Your task to perform on an android device: change timer sound Image 0: 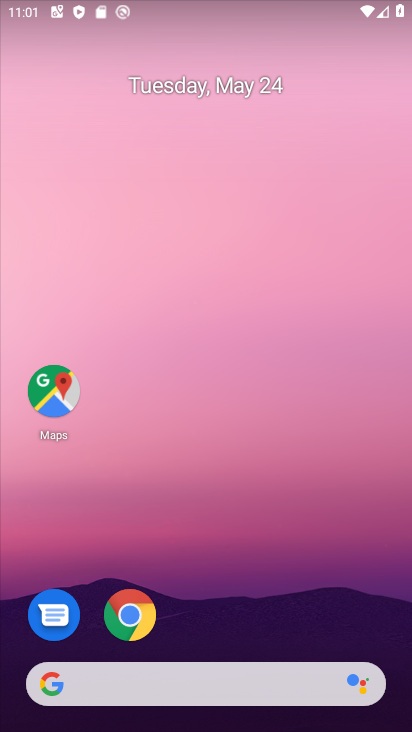
Step 0: drag from (266, 605) to (239, 199)
Your task to perform on an android device: change timer sound Image 1: 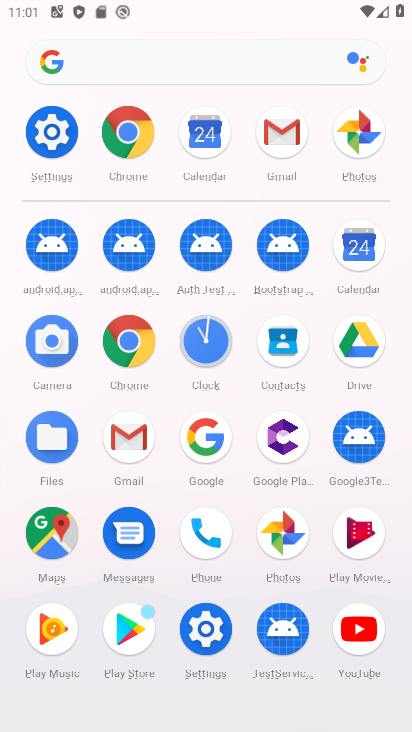
Step 1: click (208, 336)
Your task to perform on an android device: change timer sound Image 2: 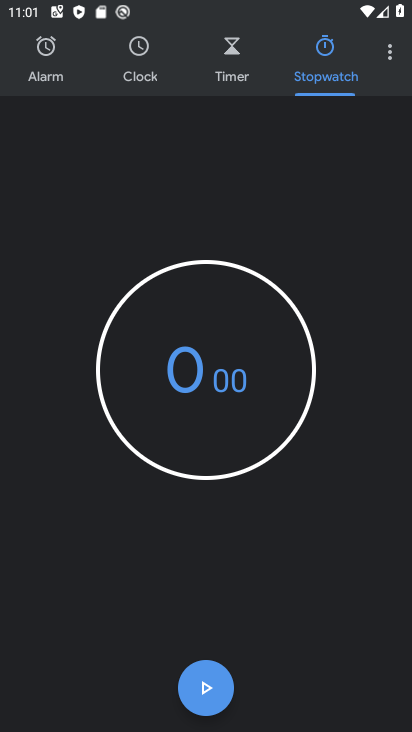
Step 2: click (382, 51)
Your task to perform on an android device: change timer sound Image 3: 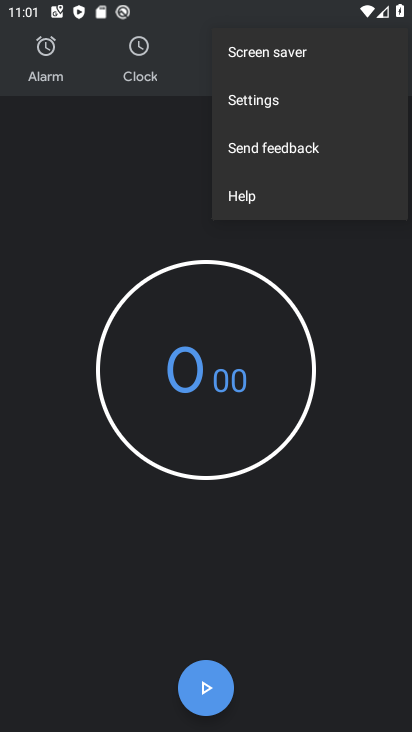
Step 3: click (302, 107)
Your task to perform on an android device: change timer sound Image 4: 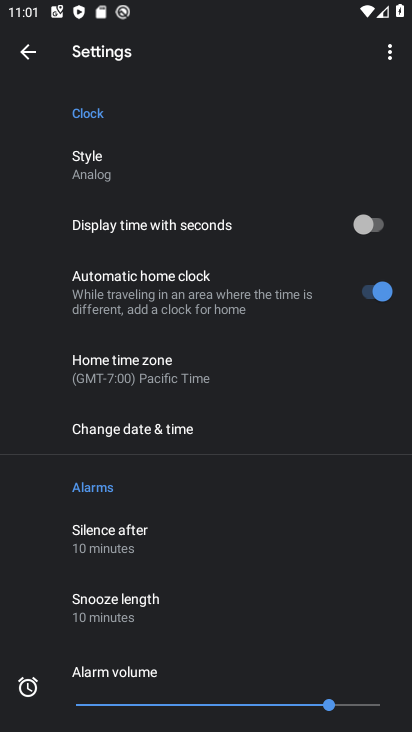
Step 4: drag from (239, 586) to (282, 260)
Your task to perform on an android device: change timer sound Image 5: 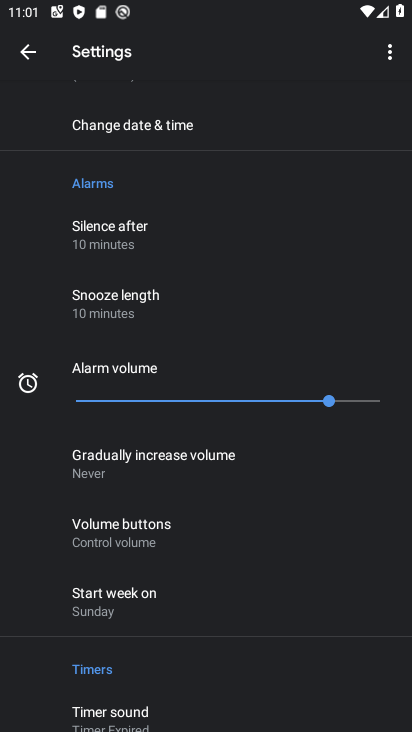
Step 5: drag from (303, 612) to (348, 242)
Your task to perform on an android device: change timer sound Image 6: 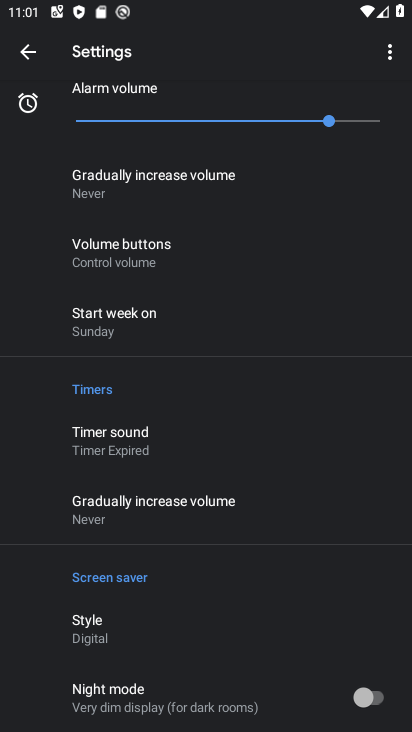
Step 6: drag from (347, 619) to (347, 269)
Your task to perform on an android device: change timer sound Image 7: 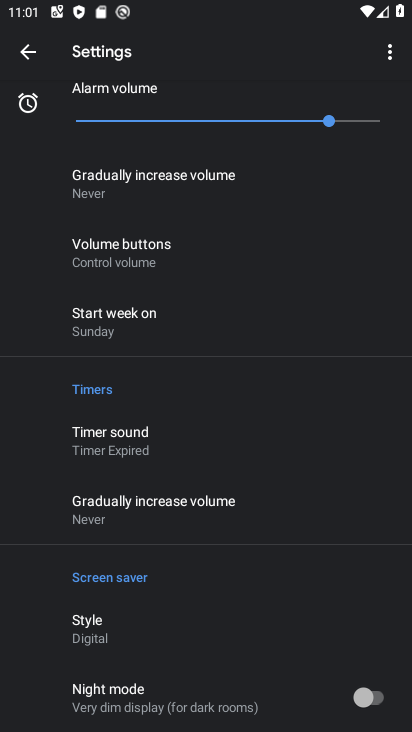
Step 7: click (115, 426)
Your task to perform on an android device: change timer sound Image 8: 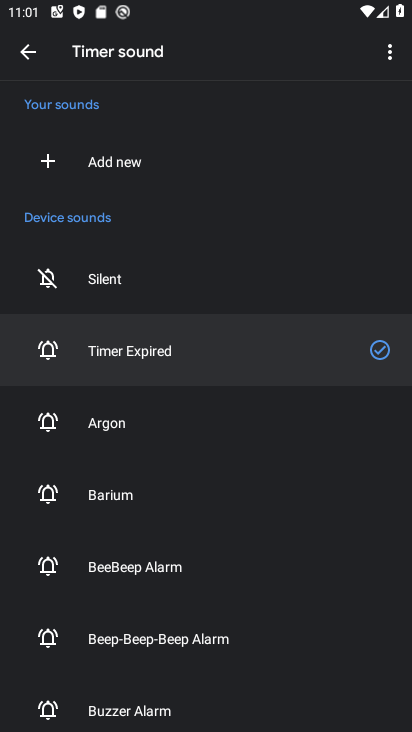
Step 8: click (130, 436)
Your task to perform on an android device: change timer sound Image 9: 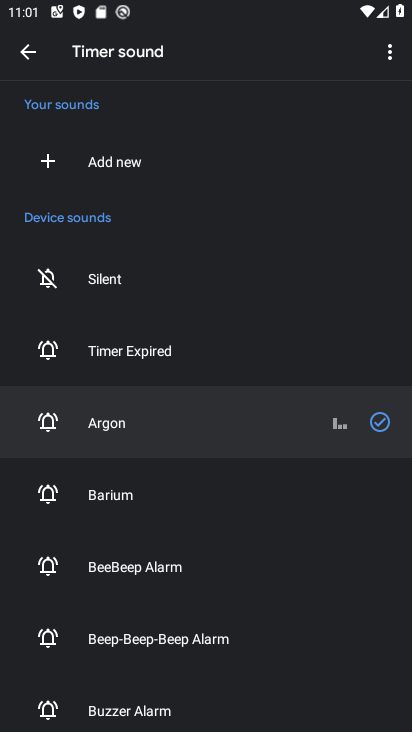
Step 9: click (170, 514)
Your task to perform on an android device: change timer sound Image 10: 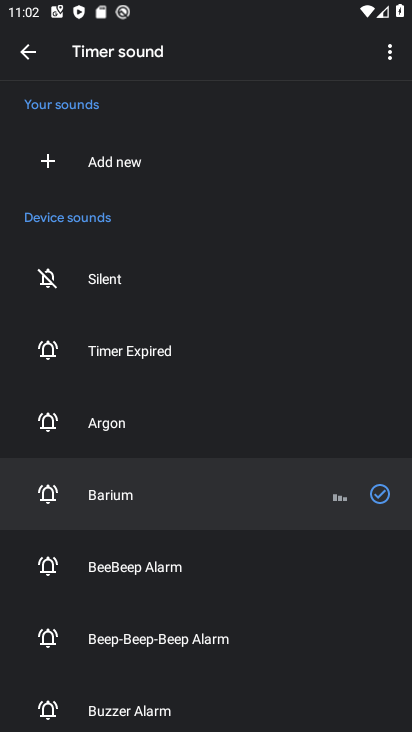
Step 10: task complete